Your task to perform on an android device: toggle location history Image 0: 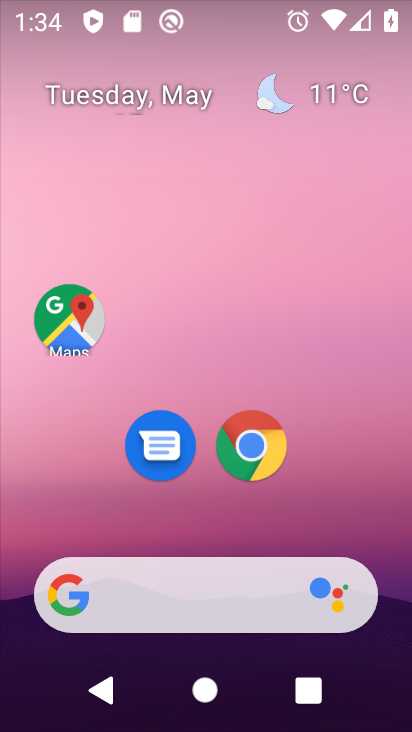
Step 0: drag from (354, 499) to (321, 161)
Your task to perform on an android device: toggle location history Image 1: 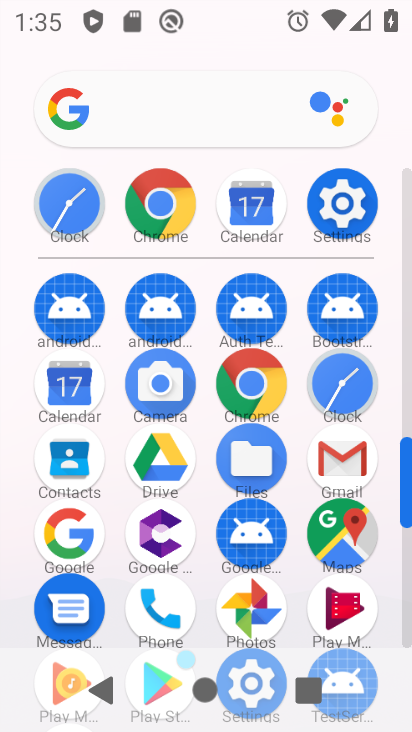
Step 1: click (350, 207)
Your task to perform on an android device: toggle location history Image 2: 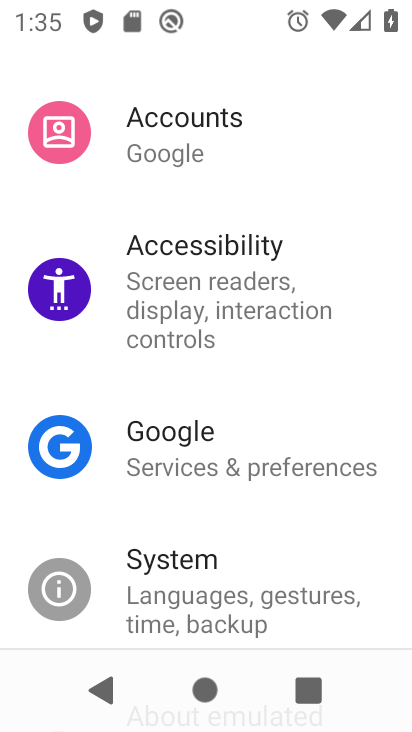
Step 2: drag from (281, 553) to (254, 138)
Your task to perform on an android device: toggle location history Image 3: 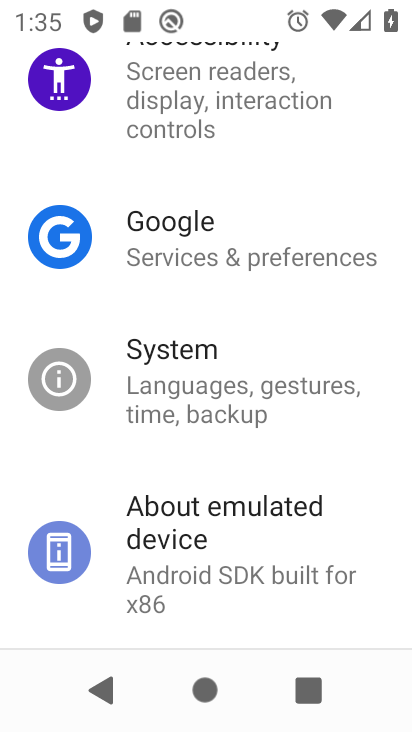
Step 3: drag from (205, 167) to (250, 707)
Your task to perform on an android device: toggle location history Image 4: 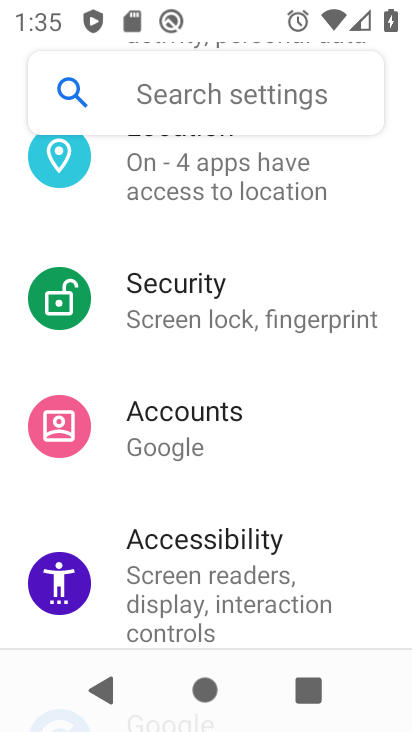
Step 4: drag from (217, 234) to (172, 679)
Your task to perform on an android device: toggle location history Image 5: 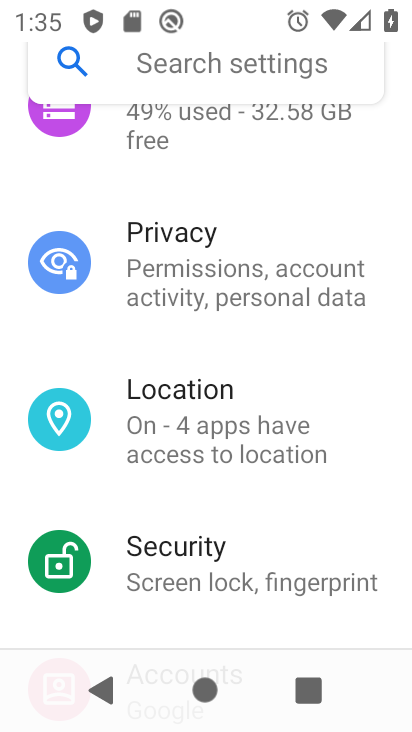
Step 5: click (166, 444)
Your task to perform on an android device: toggle location history Image 6: 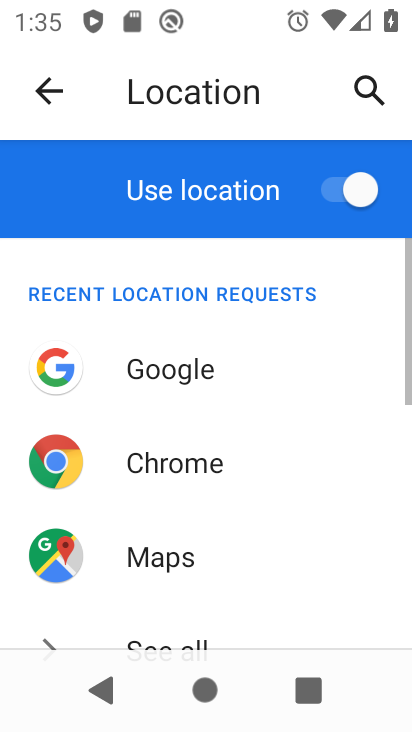
Step 6: drag from (268, 600) to (255, 291)
Your task to perform on an android device: toggle location history Image 7: 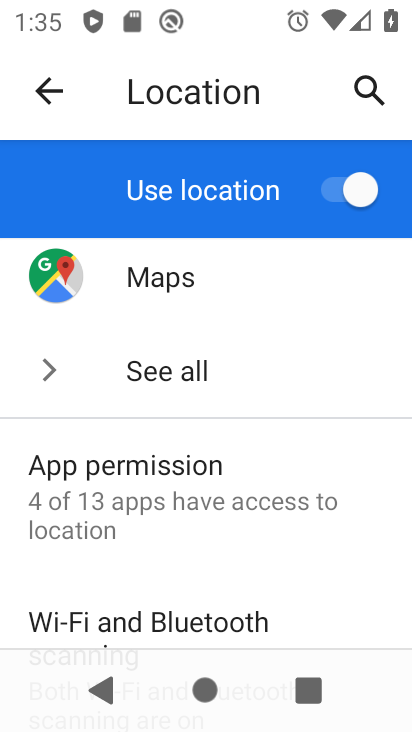
Step 7: drag from (252, 566) to (212, 305)
Your task to perform on an android device: toggle location history Image 8: 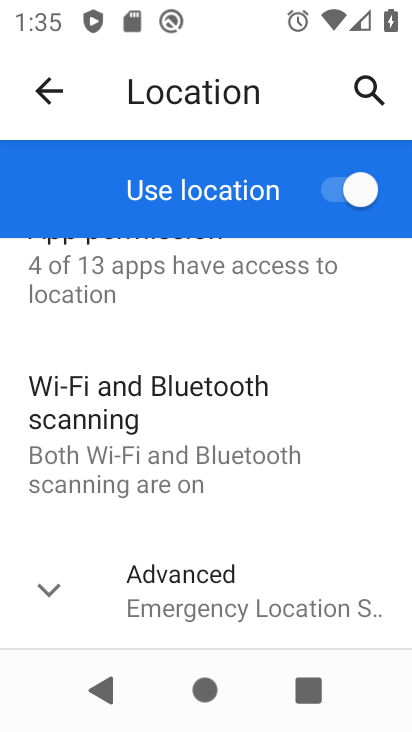
Step 8: click (98, 594)
Your task to perform on an android device: toggle location history Image 9: 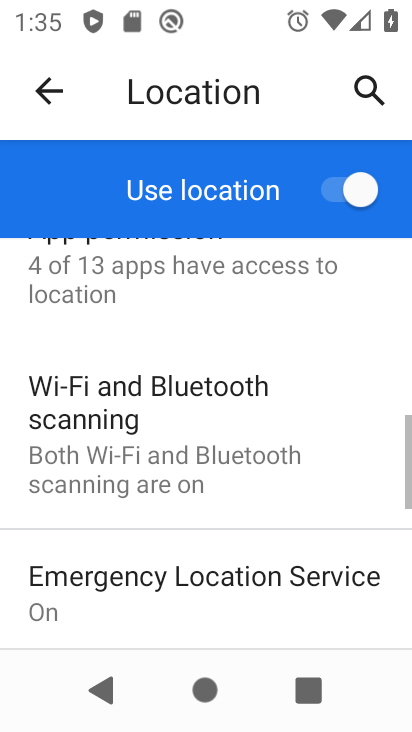
Step 9: drag from (221, 553) to (196, 198)
Your task to perform on an android device: toggle location history Image 10: 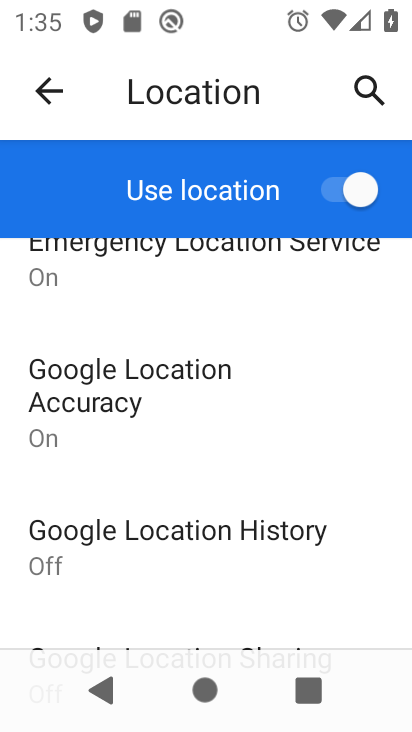
Step 10: click (249, 532)
Your task to perform on an android device: toggle location history Image 11: 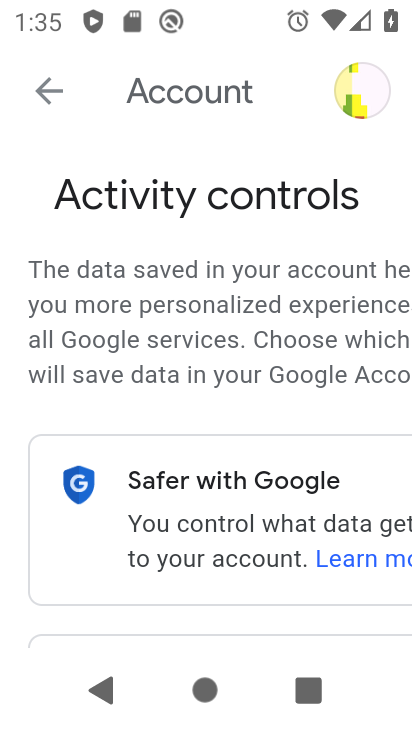
Step 11: drag from (365, 515) to (364, 208)
Your task to perform on an android device: toggle location history Image 12: 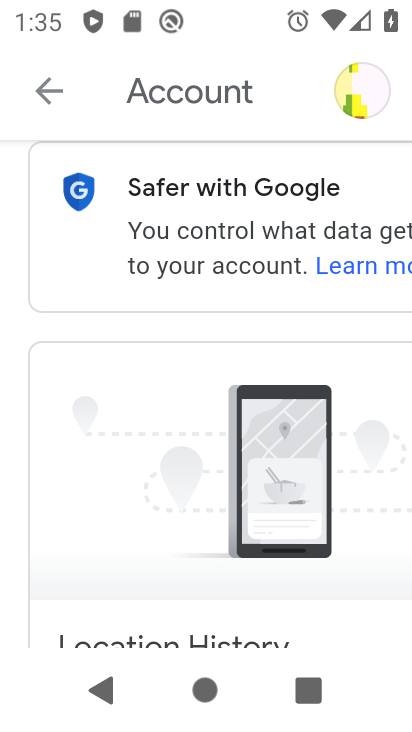
Step 12: drag from (359, 584) to (324, 258)
Your task to perform on an android device: toggle location history Image 13: 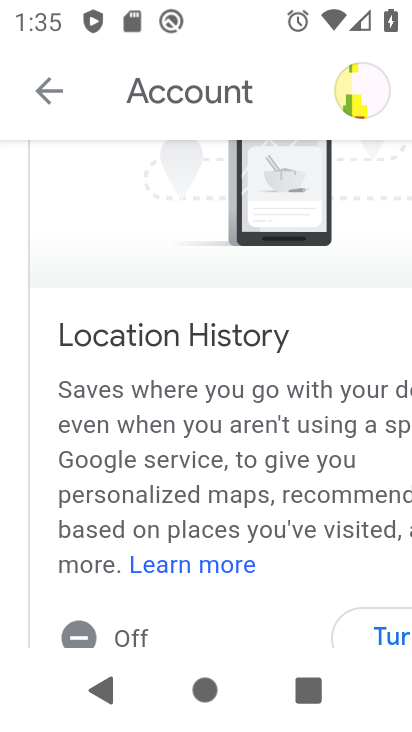
Step 13: drag from (343, 560) to (325, 373)
Your task to perform on an android device: toggle location history Image 14: 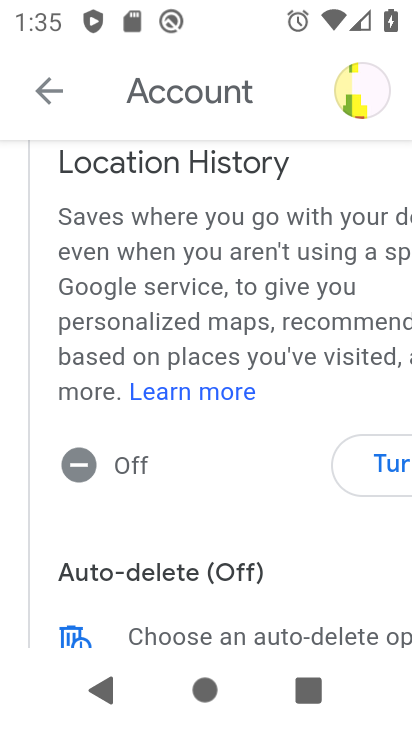
Step 14: click (368, 471)
Your task to perform on an android device: toggle location history Image 15: 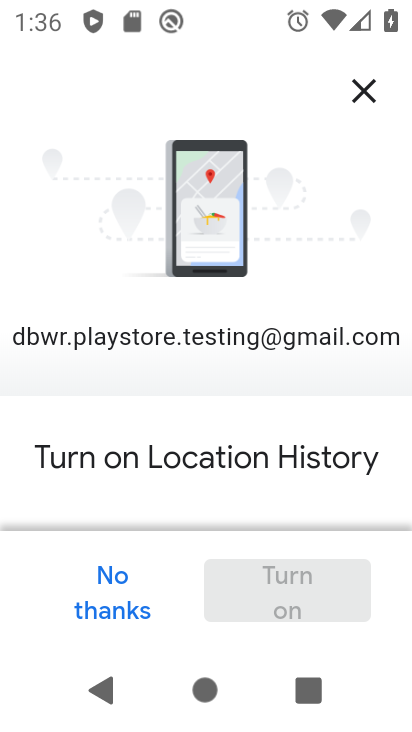
Step 15: drag from (344, 462) to (363, 7)
Your task to perform on an android device: toggle location history Image 16: 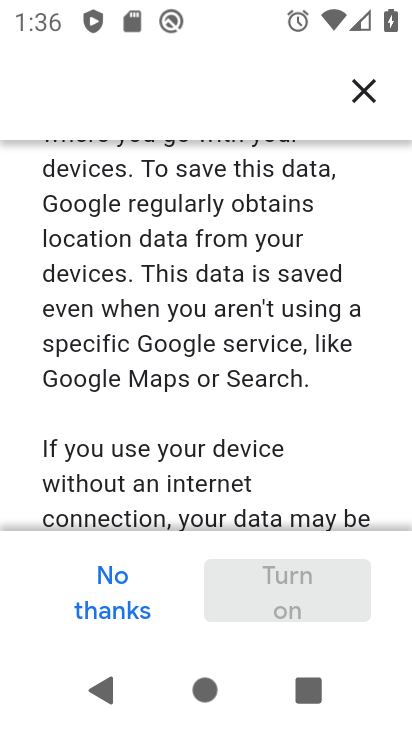
Step 16: drag from (351, 452) to (354, 36)
Your task to perform on an android device: toggle location history Image 17: 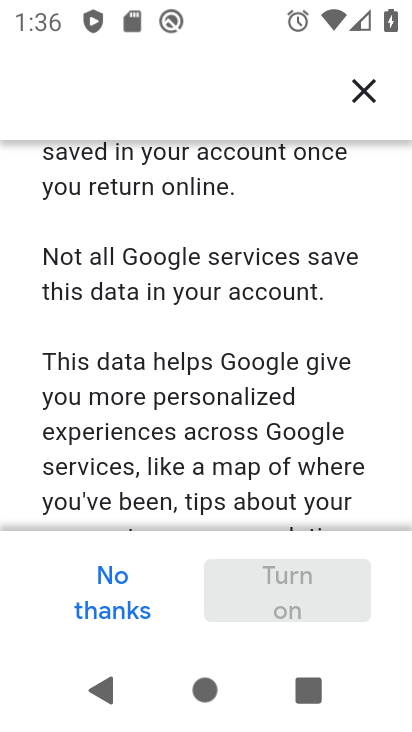
Step 17: drag from (351, 453) to (339, 70)
Your task to perform on an android device: toggle location history Image 18: 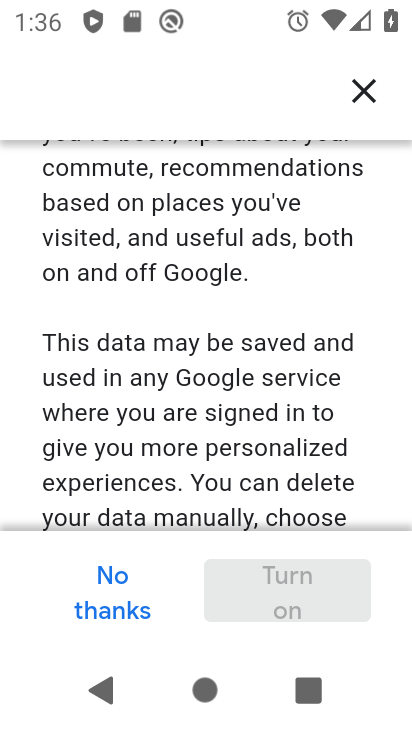
Step 18: drag from (336, 500) to (345, 0)
Your task to perform on an android device: toggle location history Image 19: 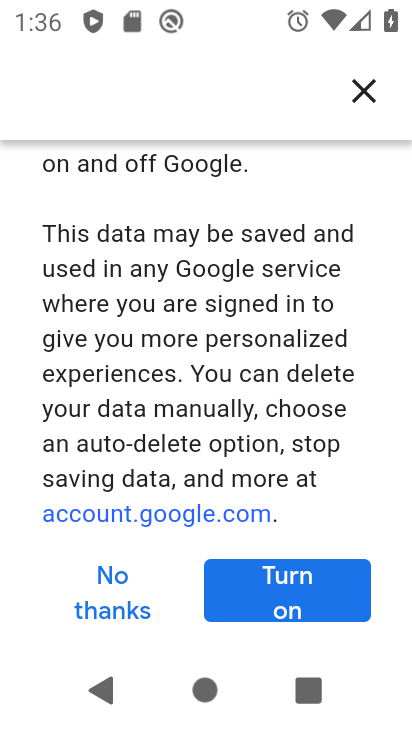
Step 19: click (306, 581)
Your task to perform on an android device: toggle location history Image 20: 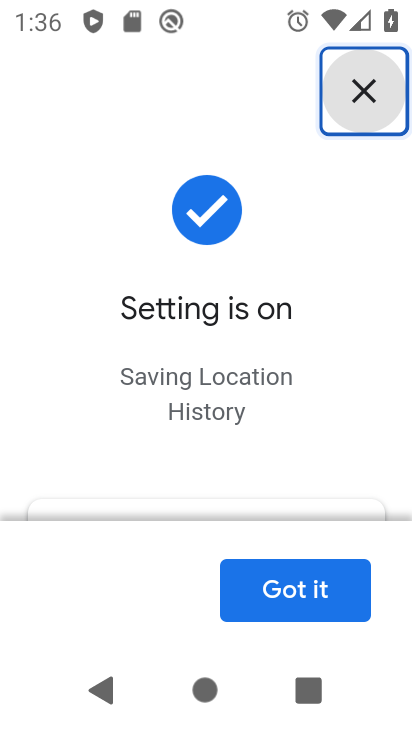
Step 20: click (335, 574)
Your task to perform on an android device: toggle location history Image 21: 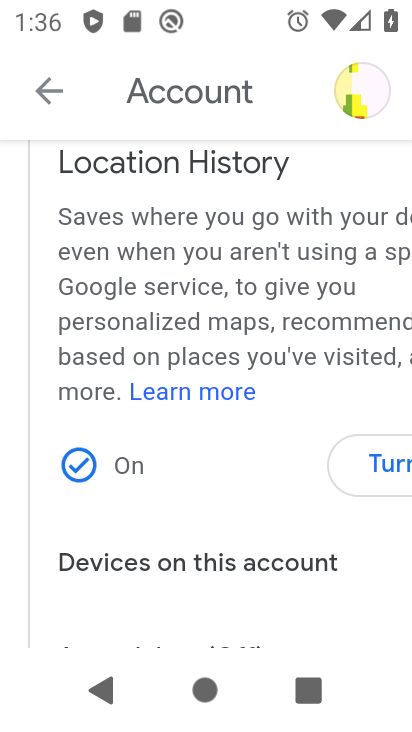
Step 21: task complete